Your task to perform on an android device: change alarm snooze length Image 0: 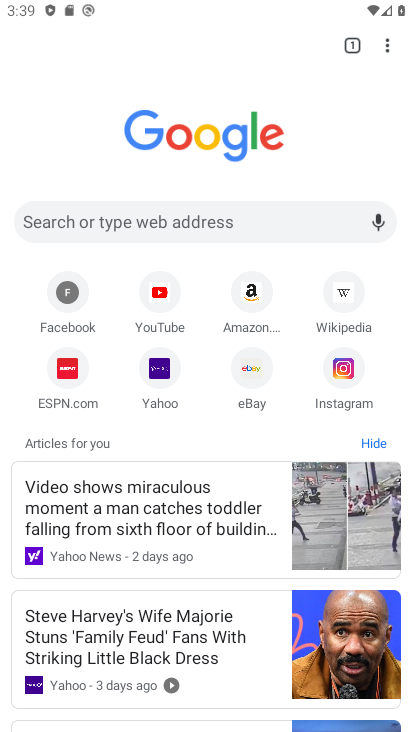
Step 0: press home button
Your task to perform on an android device: change alarm snooze length Image 1: 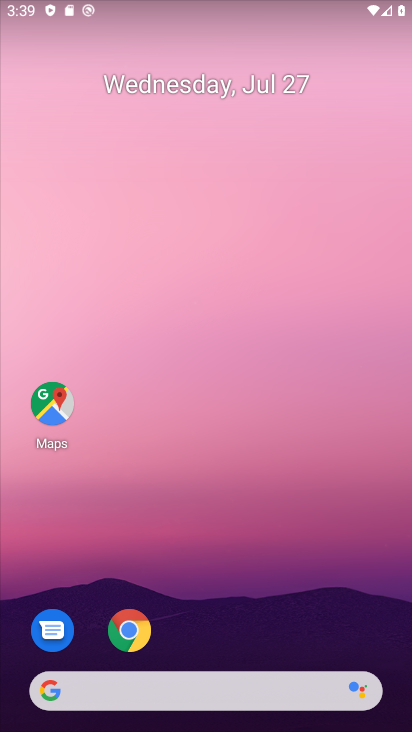
Step 1: drag from (215, 657) to (233, 186)
Your task to perform on an android device: change alarm snooze length Image 2: 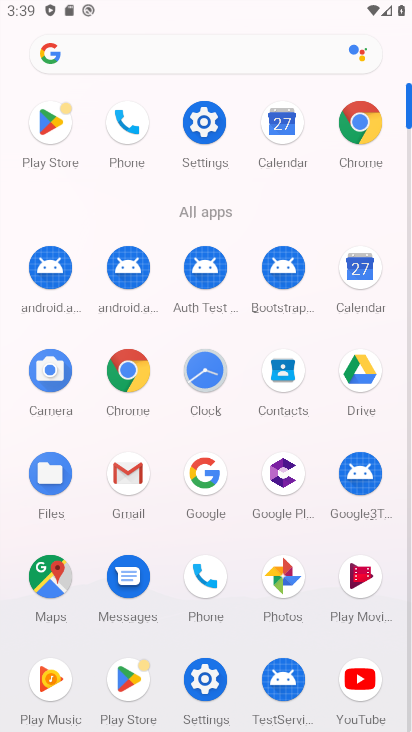
Step 2: click (212, 379)
Your task to perform on an android device: change alarm snooze length Image 3: 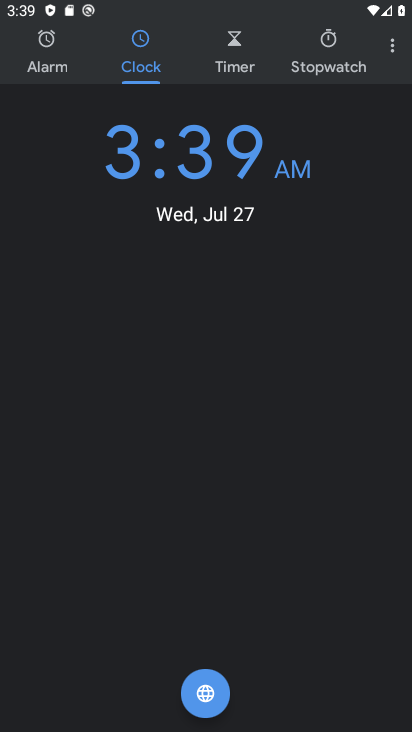
Step 3: click (389, 49)
Your task to perform on an android device: change alarm snooze length Image 4: 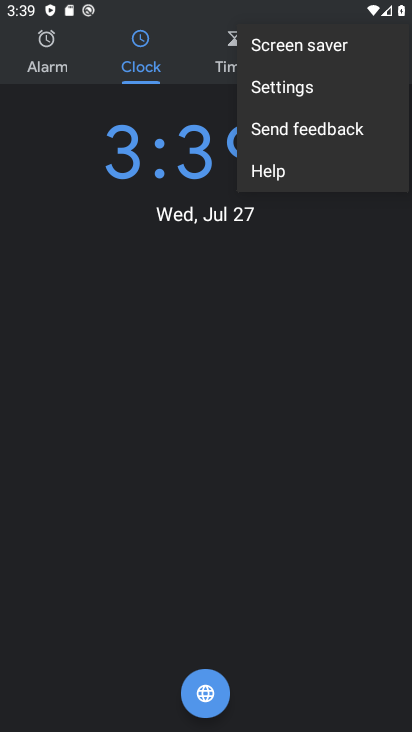
Step 4: click (330, 87)
Your task to perform on an android device: change alarm snooze length Image 5: 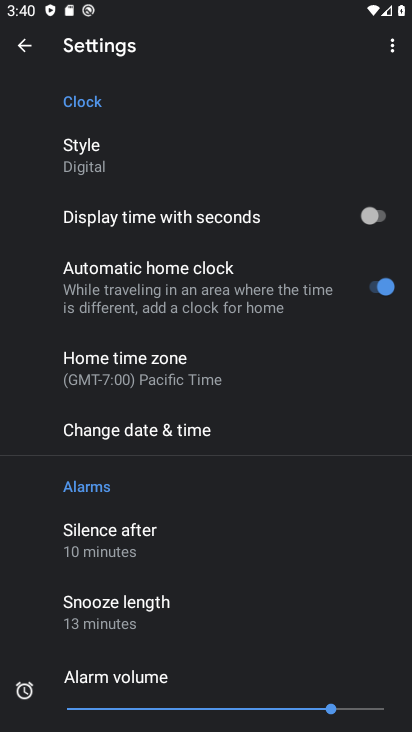
Step 5: click (158, 601)
Your task to perform on an android device: change alarm snooze length Image 6: 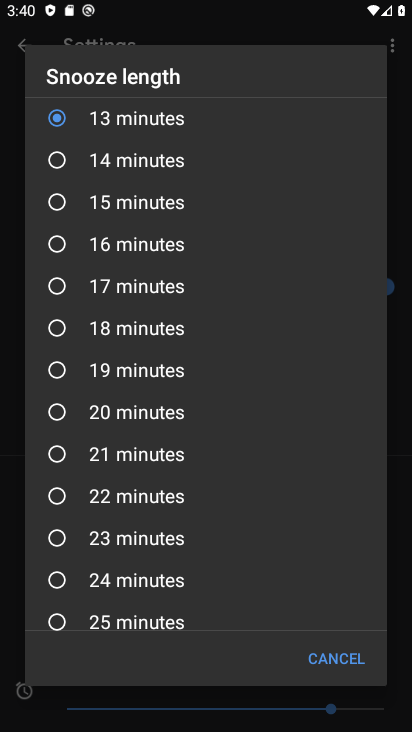
Step 6: click (59, 245)
Your task to perform on an android device: change alarm snooze length Image 7: 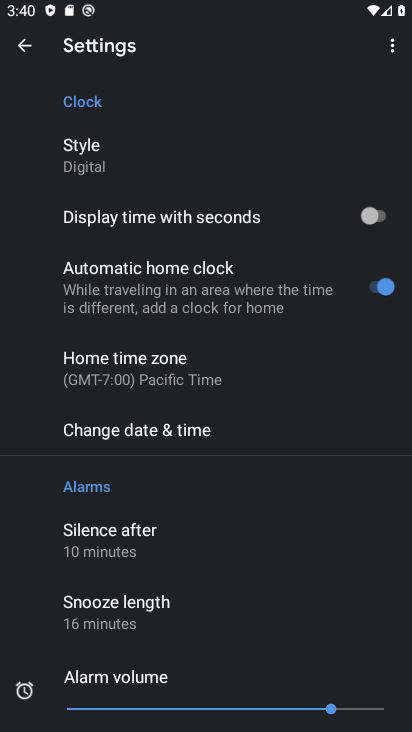
Step 7: task complete